Your task to perform on an android device: open app "Google Maps" Image 0: 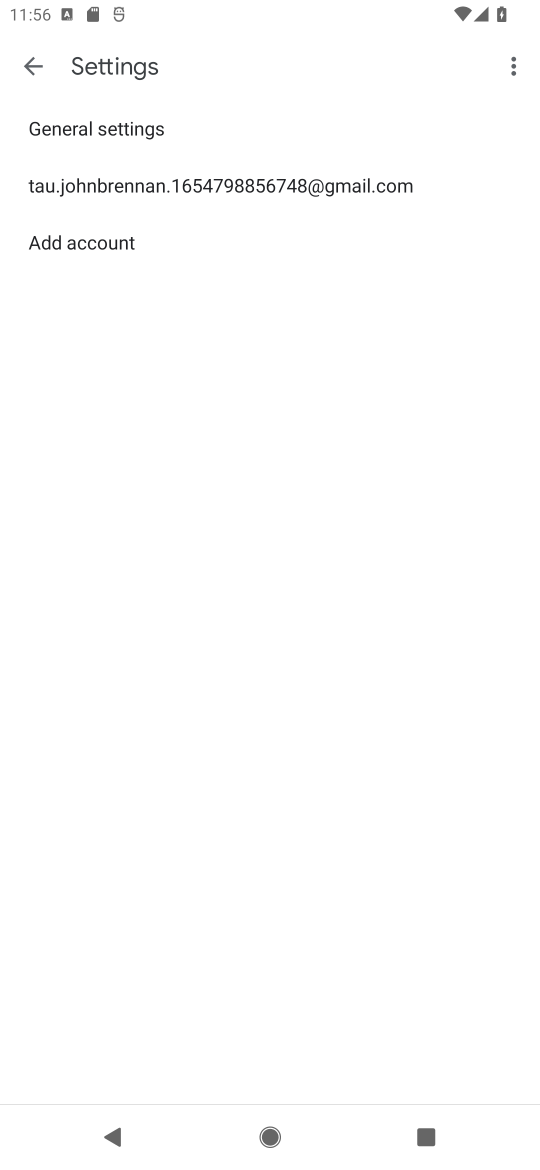
Step 0: press home button
Your task to perform on an android device: open app "Google Maps" Image 1: 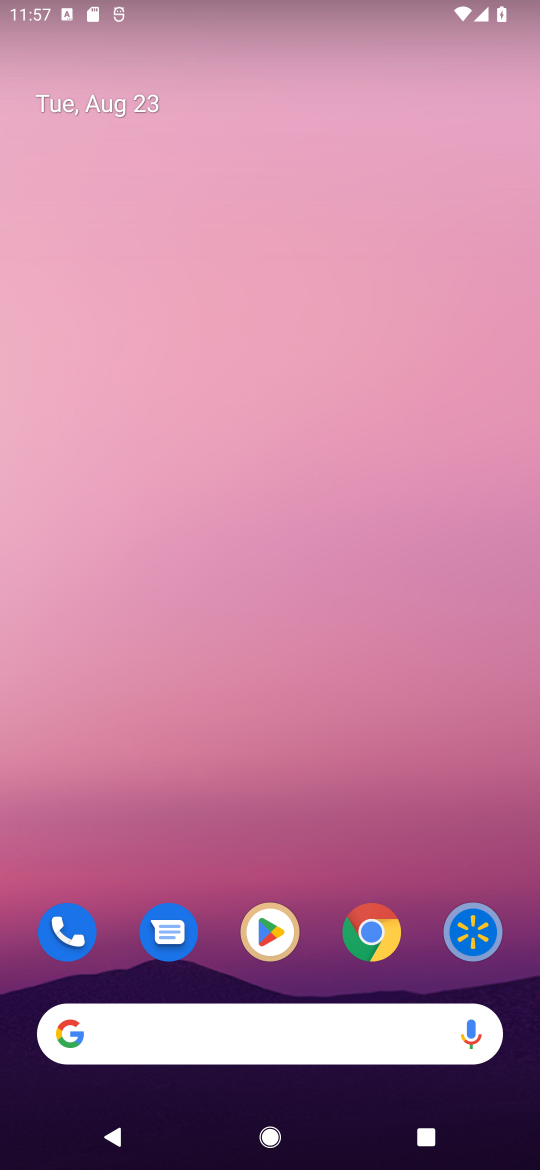
Step 1: click (269, 928)
Your task to perform on an android device: open app "Google Maps" Image 2: 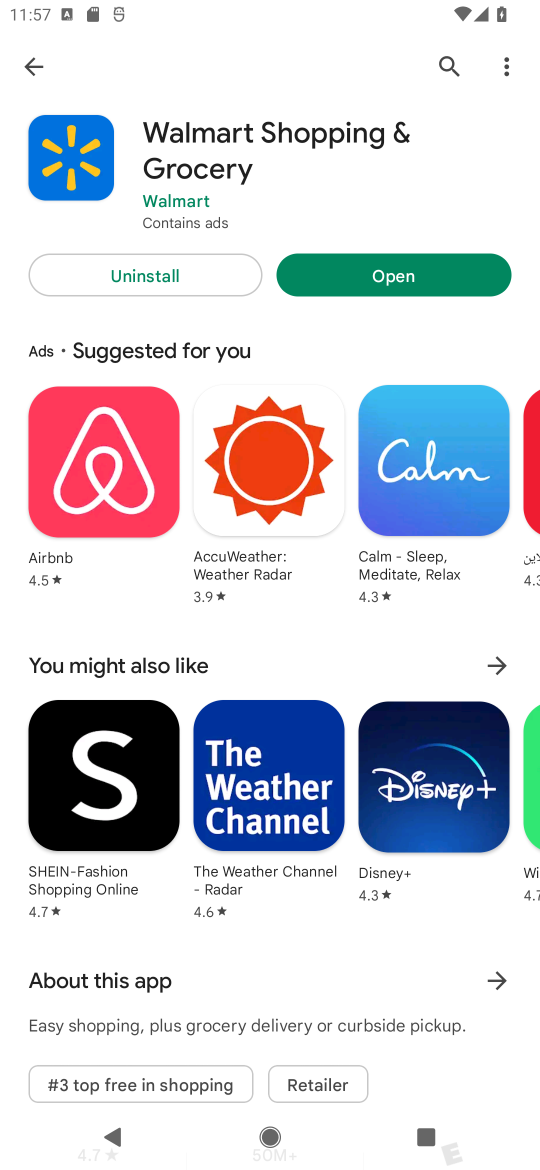
Step 2: click (460, 60)
Your task to perform on an android device: open app "Google Maps" Image 3: 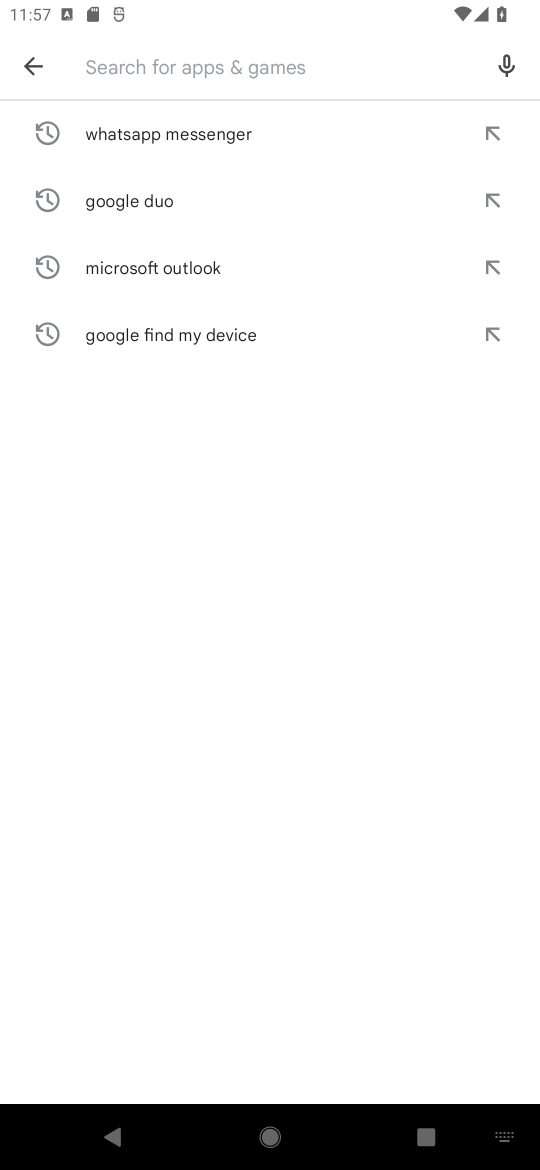
Step 3: click (258, 73)
Your task to perform on an android device: open app "Google Maps" Image 4: 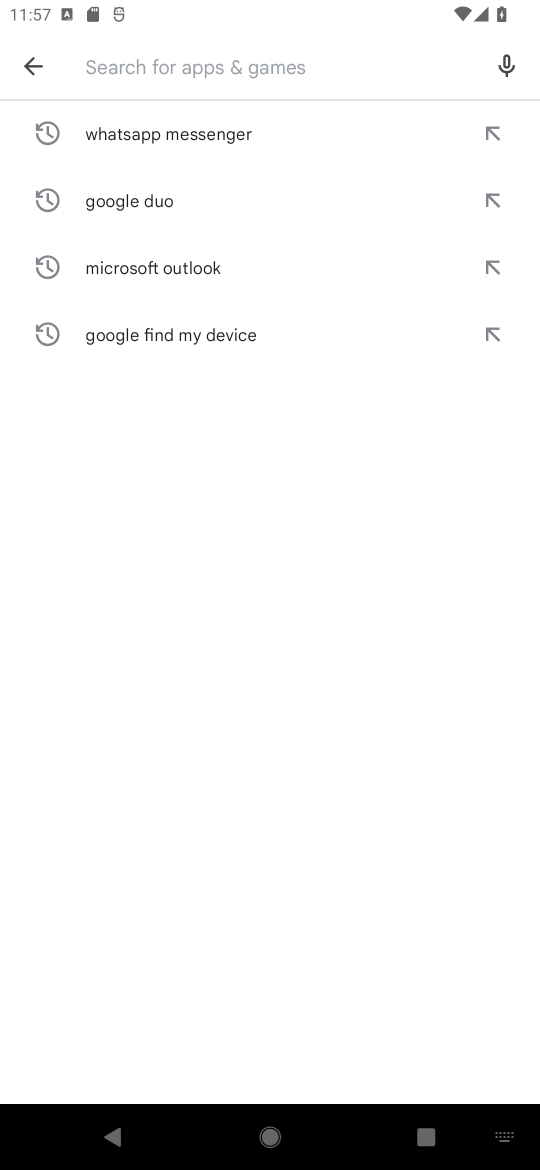
Step 4: type "Google Maps"
Your task to perform on an android device: open app "Google Maps" Image 5: 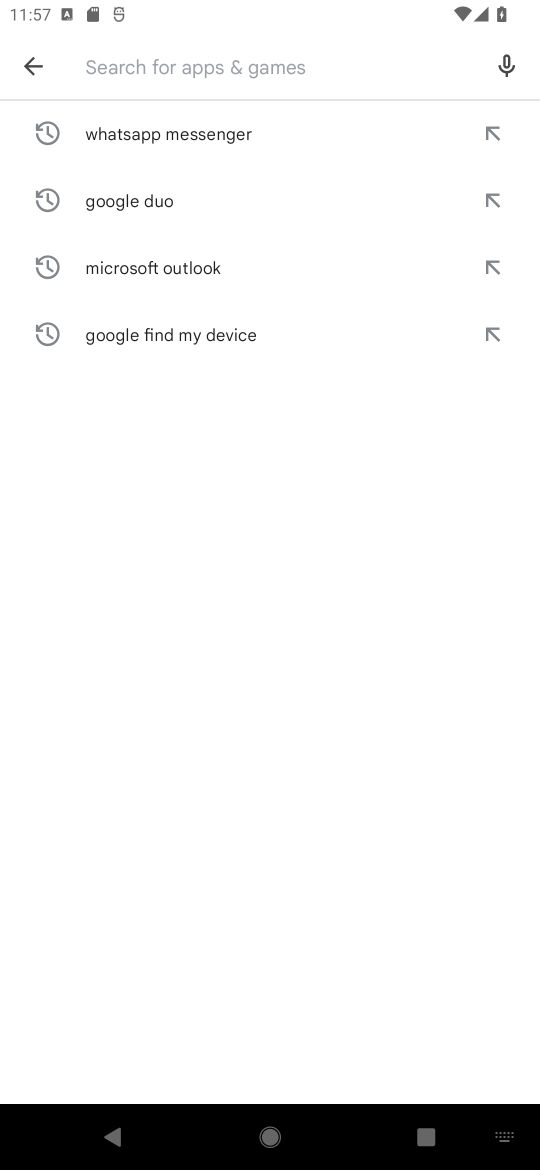
Step 5: click (383, 669)
Your task to perform on an android device: open app "Google Maps" Image 6: 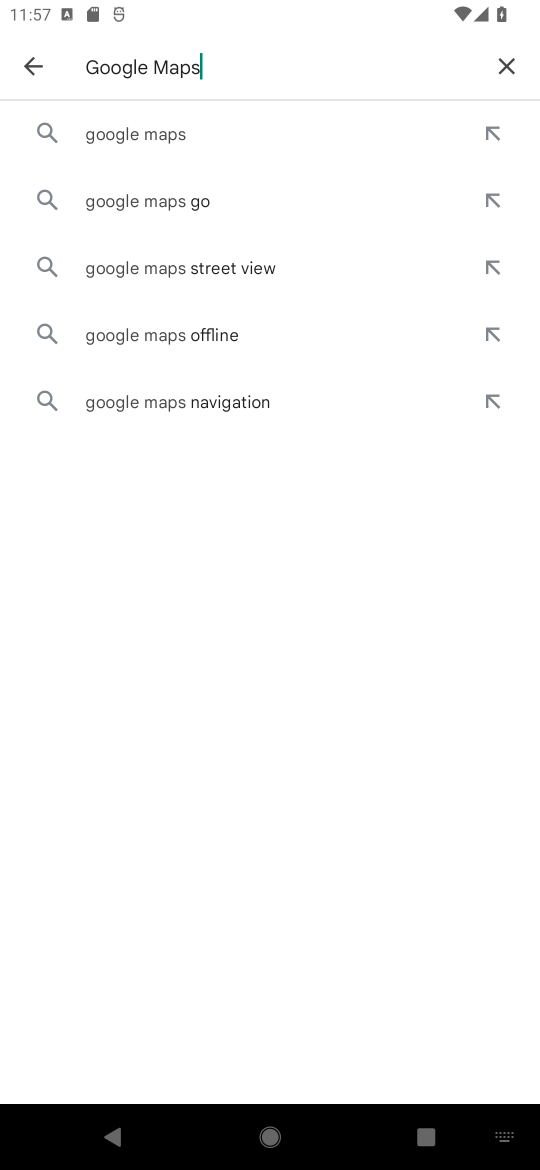
Step 6: click (113, 111)
Your task to perform on an android device: open app "Google Maps" Image 7: 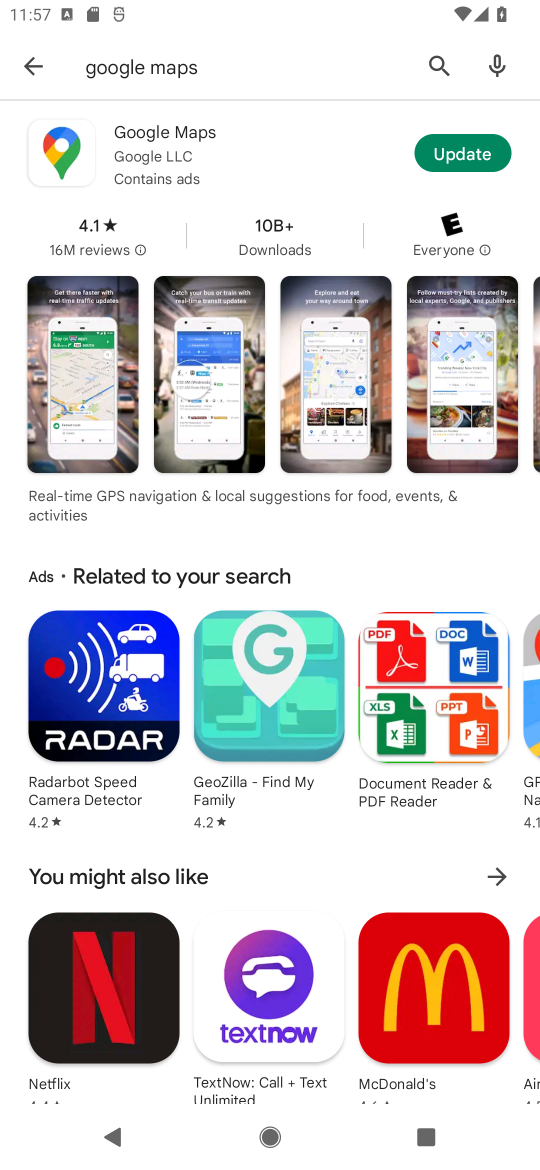
Step 7: click (152, 156)
Your task to perform on an android device: open app "Google Maps" Image 8: 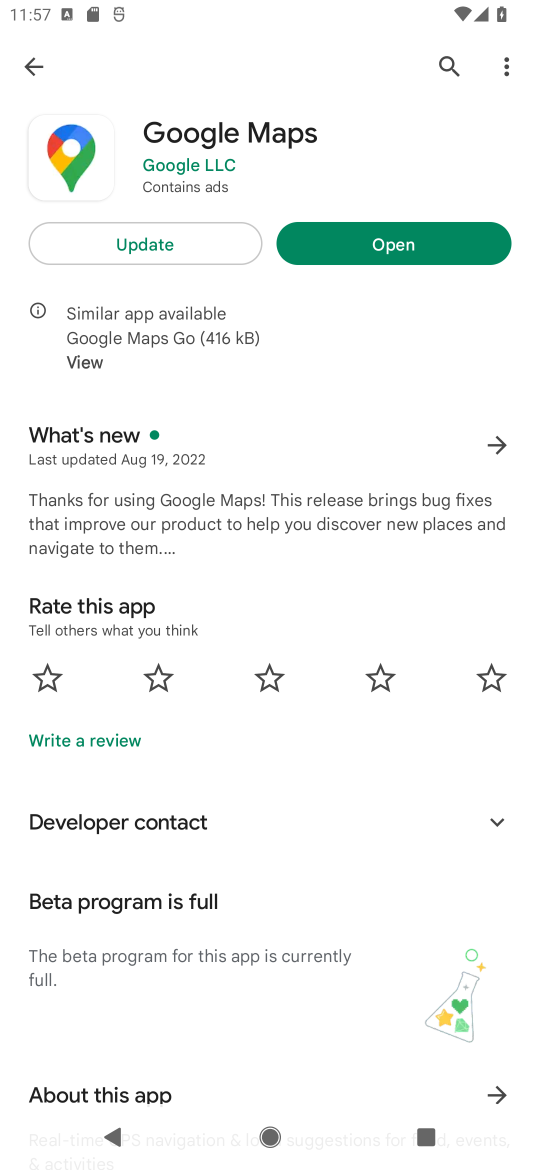
Step 8: click (402, 252)
Your task to perform on an android device: open app "Google Maps" Image 9: 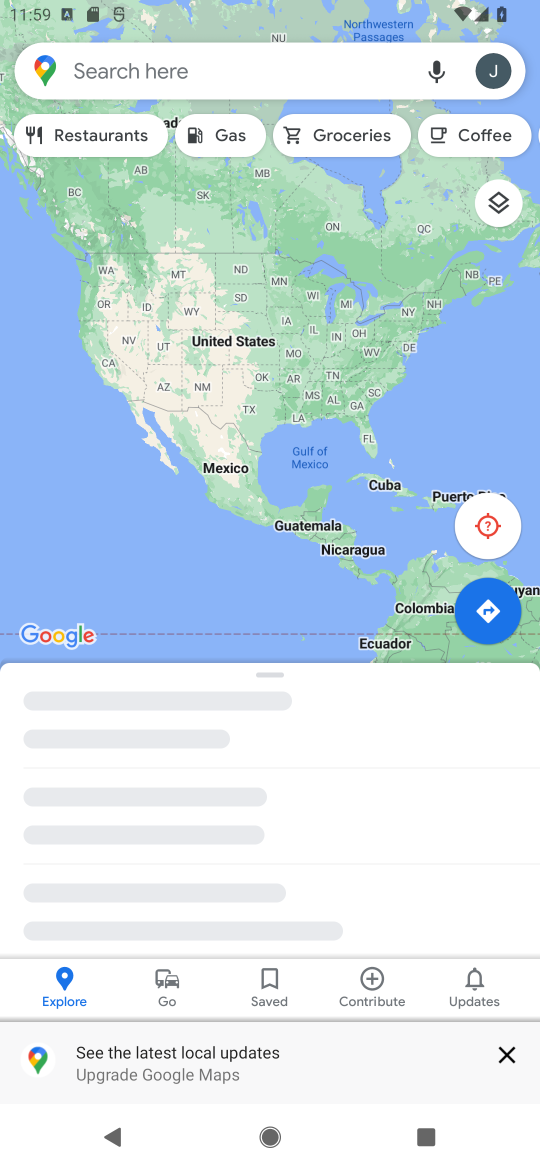
Step 9: task complete